Your task to perform on an android device: visit the assistant section in the google photos Image 0: 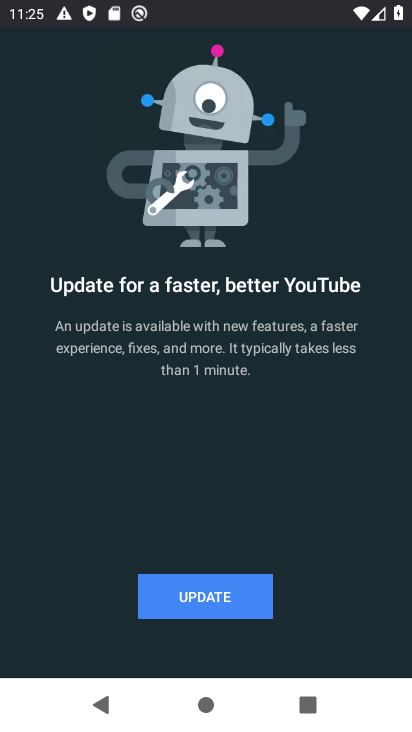
Step 0: press home button
Your task to perform on an android device: visit the assistant section in the google photos Image 1: 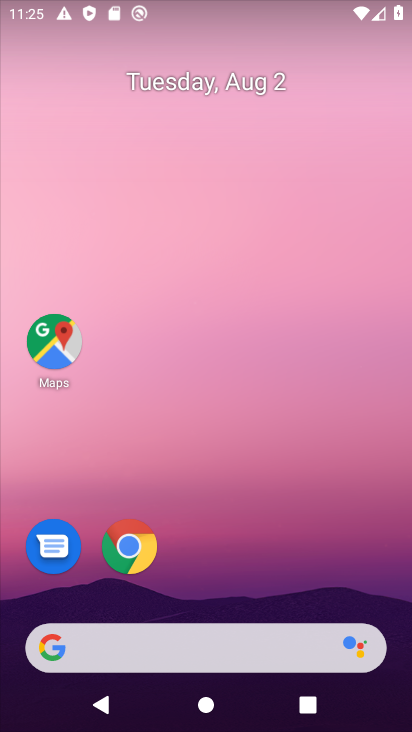
Step 1: drag from (185, 574) to (131, 159)
Your task to perform on an android device: visit the assistant section in the google photos Image 2: 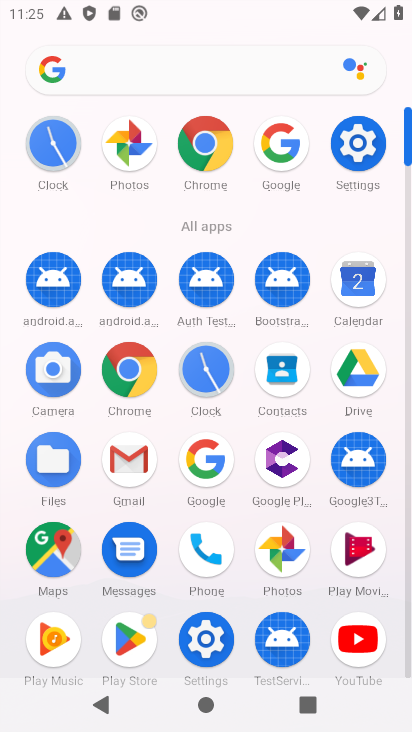
Step 2: click (141, 157)
Your task to perform on an android device: visit the assistant section in the google photos Image 3: 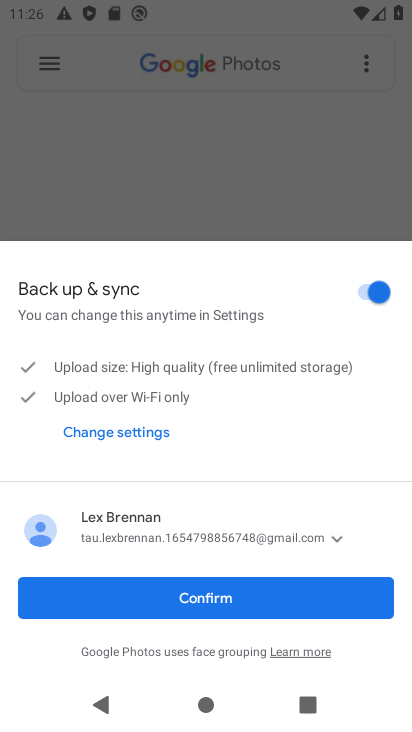
Step 3: click (198, 593)
Your task to perform on an android device: visit the assistant section in the google photos Image 4: 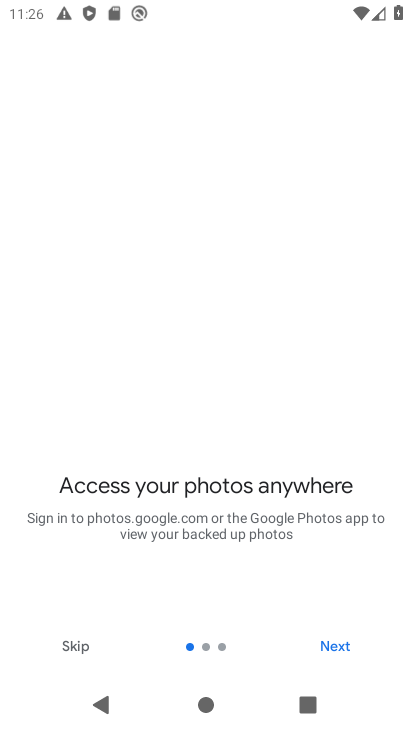
Step 4: click (317, 643)
Your task to perform on an android device: visit the assistant section in the google photos Image 5: 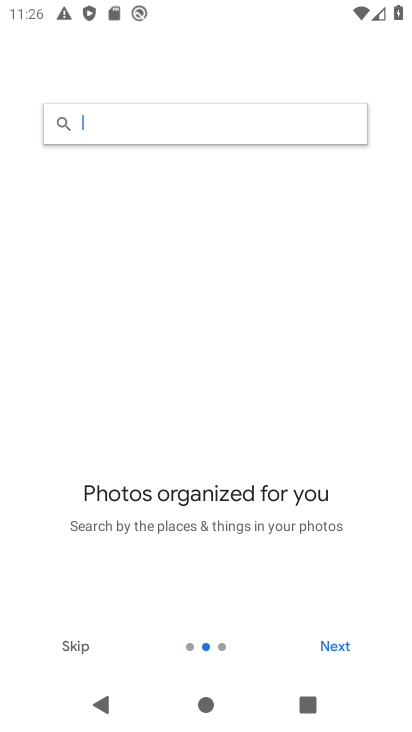
Step 5: click (317, 643)
Your task to perform on an android device: visit the assistant section in the google photos Image 6: 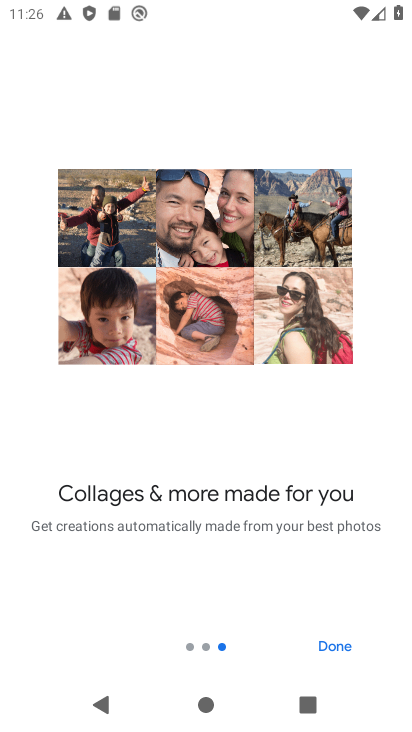
Step 6: click (317, 643)
Your task to perform on an android device: visit the assistant section in the google photos Image 7: 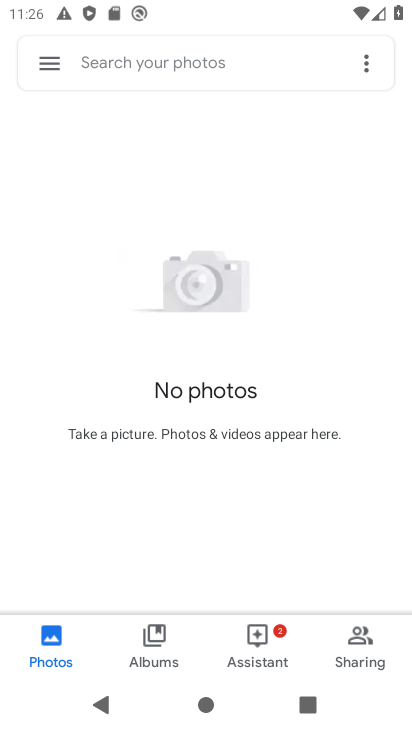
Step 7: click (244, 637)
Your task to perform on an android device: visit the assistant section in the google photos Image 8: 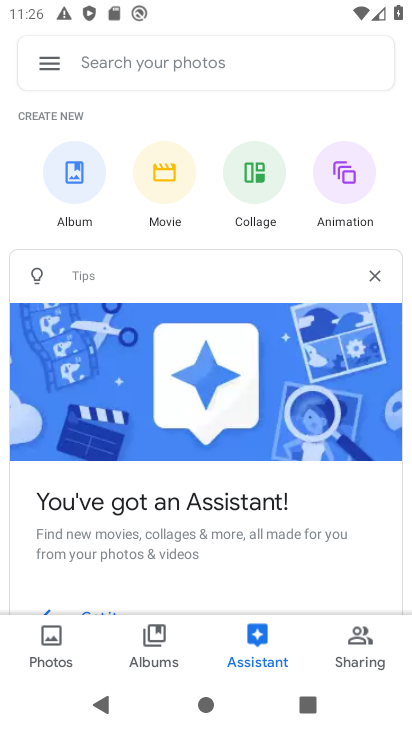
Step 8: task complete